Your task to perform on an android device: install app "Facebook Messenger" Image 0: 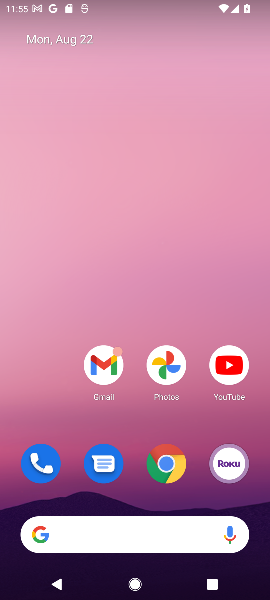
Step 0: drag from (134, 533) to (108, 88)
Your task to perform on an android device: install app "Facebook Messenger" Image 1: 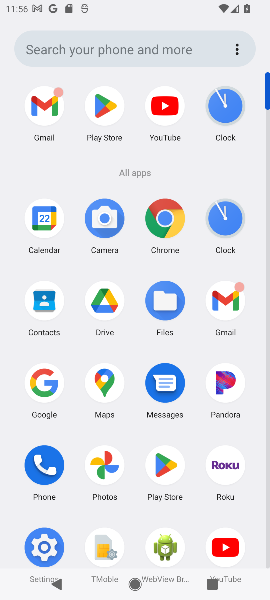
Step 1: click (94, 109)
Your task to perform on an android device: install app "Facebook Messenger" Image 2: 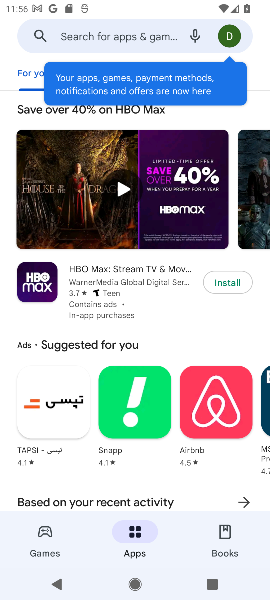
Step 2: click (113, 37)
Your task to perform on an android device: install app "Facebook Messenger" Image 3: 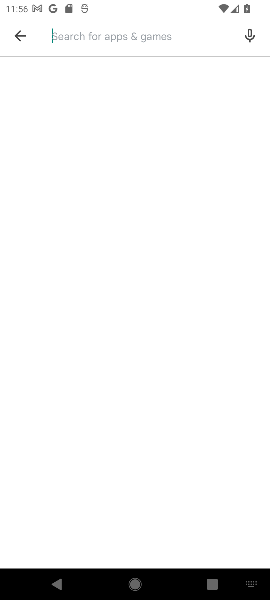
Step 3: type "Facebook Messenger"
Your task to perform on an android device: install app "Facebook Messenger" Image 4: 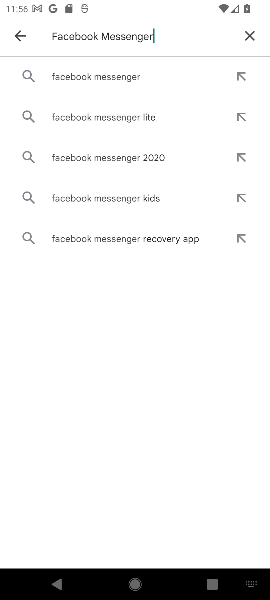
Step 4: click (121, 76)
Your task to perform on an android device: install app "Facebook Messenger" Image 5: 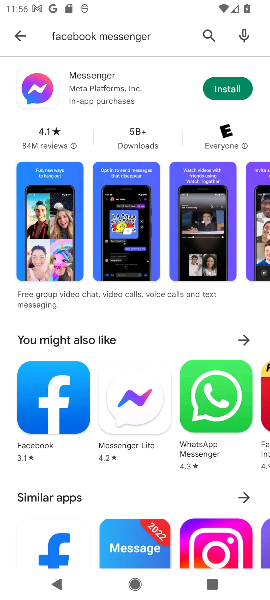
Step 5: click (215, 92)
Your task to perform on an android device: install app "Facebook Messenger" Image 6: 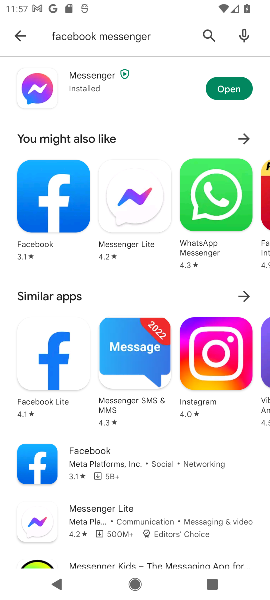
Step 6: task complete